Your task to perform on an android device: Open internet settings Image 0: 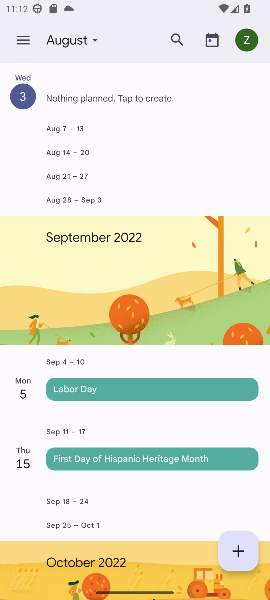
Step 0: press home button
Your task to perform on an android device: Open internet settings Image 1: 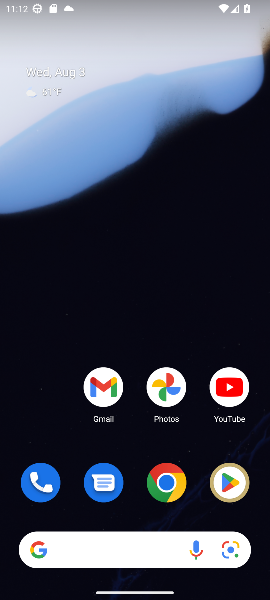
Step 1: drag from (143, 521) to (146, 109)
Your task to perform on an android device: Open internet settings Image 2: 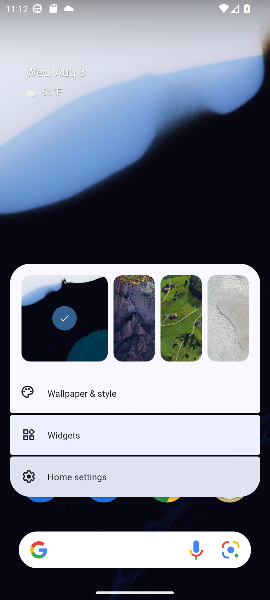
Step 2: click (146, 109)
Your task to perform on an android device: Open internet settings Image 3: 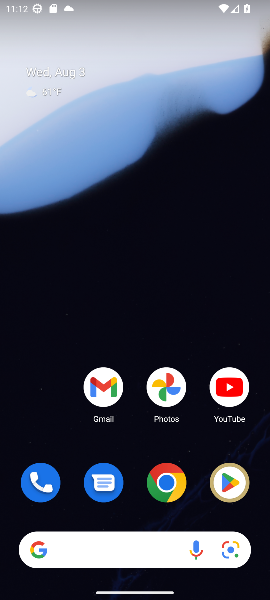
Step 3: drag from (79, 528) to (88, 165)
Your task to perform on an android device: Open internet settings Image 4: 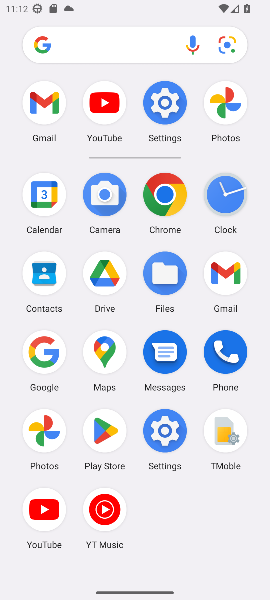
Step 4: click (184, 98)
Your task to perform on an android device: Open internet settings Image 5: 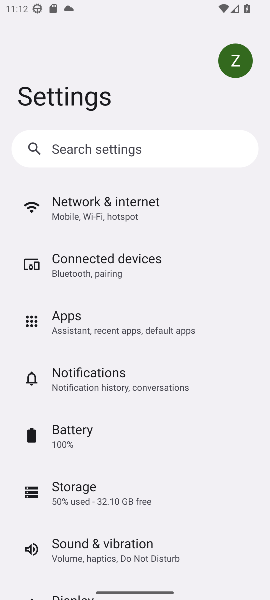
Step 5: click (128, 196)
Your task to perform on an android device: Open internet settings Image 6: 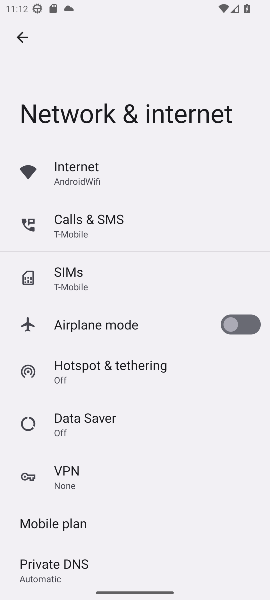
Step 6: task complete